Your task to perform on an android device: install app "VLC for Android" Image 0: 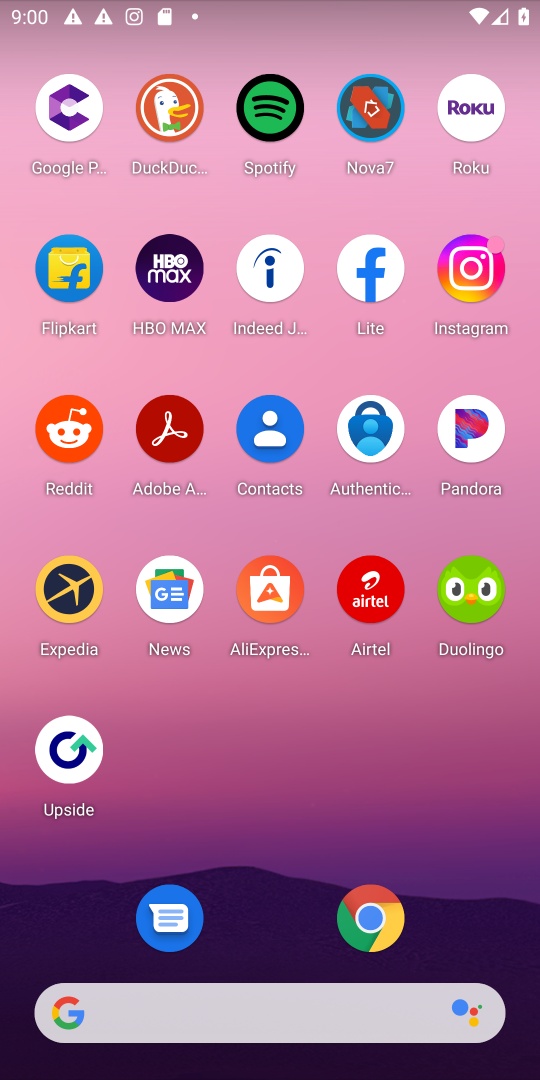
Step 0: press home button
Your task to perform on an android device: install app "VLC for Android" Image 1: 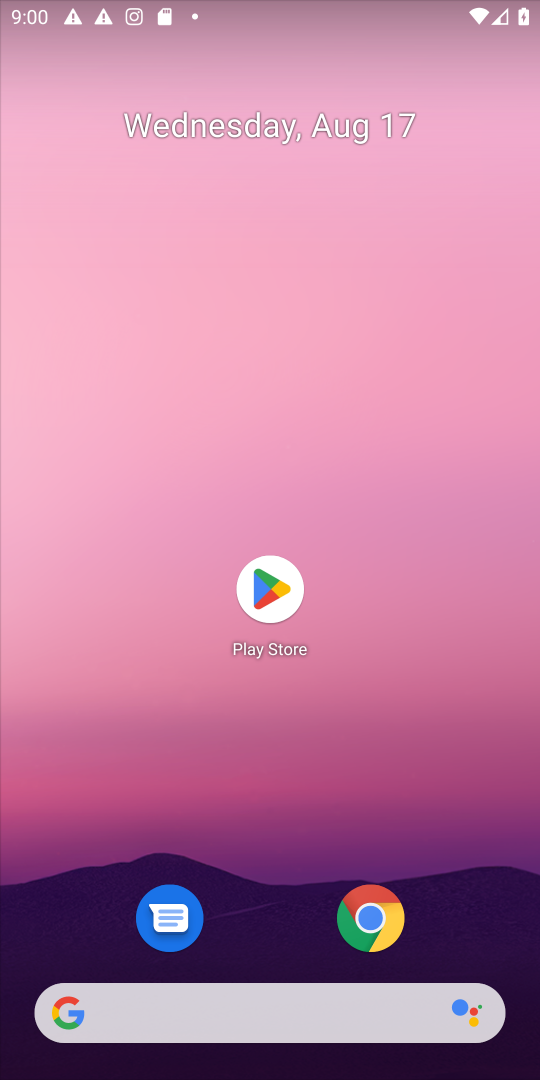
Step 1: click (268, 589)
Your task to perform on an android device: install app "VLC for Android" Image 2: 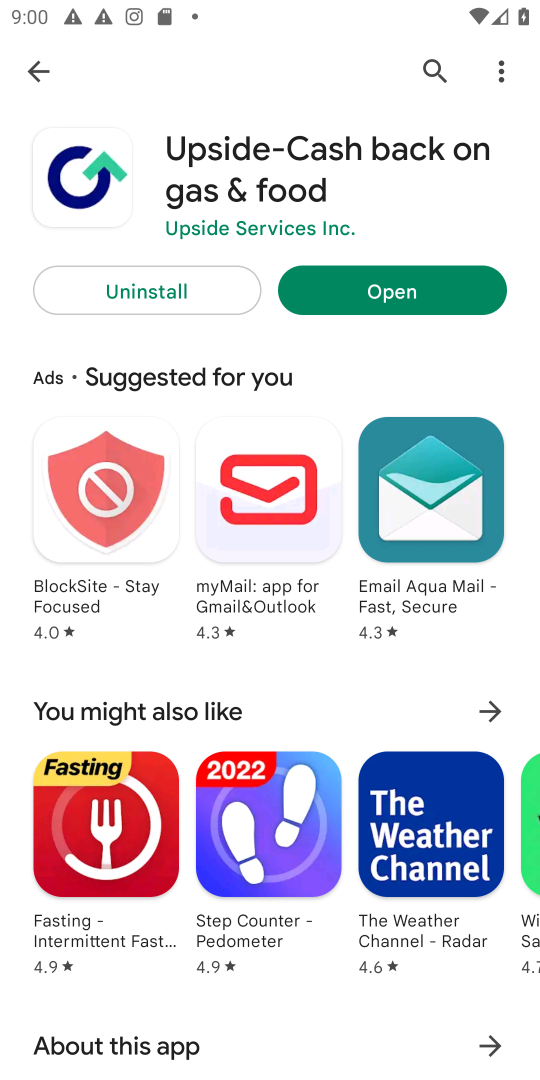
Step 2: click (430, 62)
Your task to perform on an android device: install app "VLC for Android" Image 3: 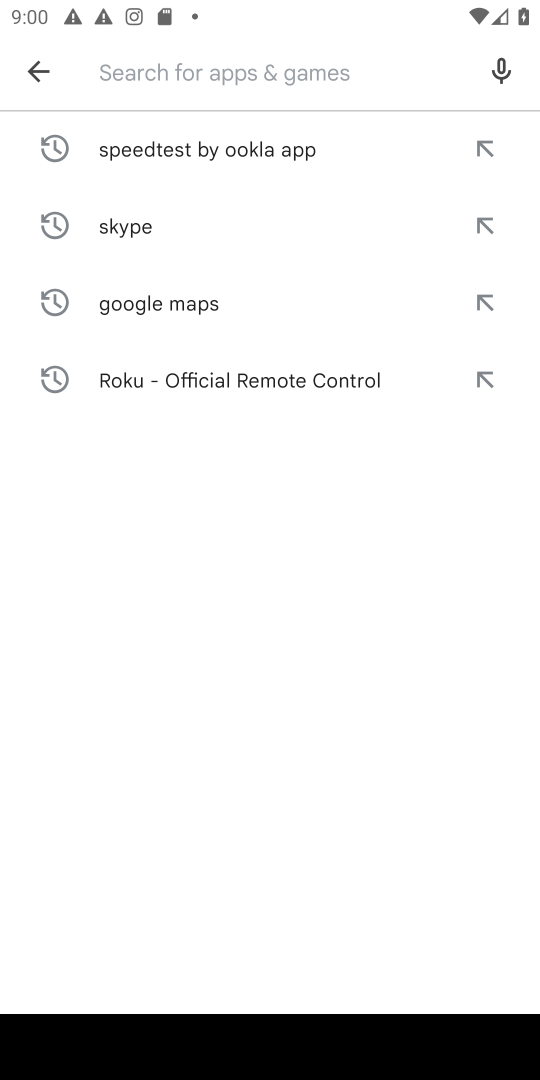
Step 3: type "VLC for Android"
Your task to perform on an android device: install app "VLC for Android" Image 4: 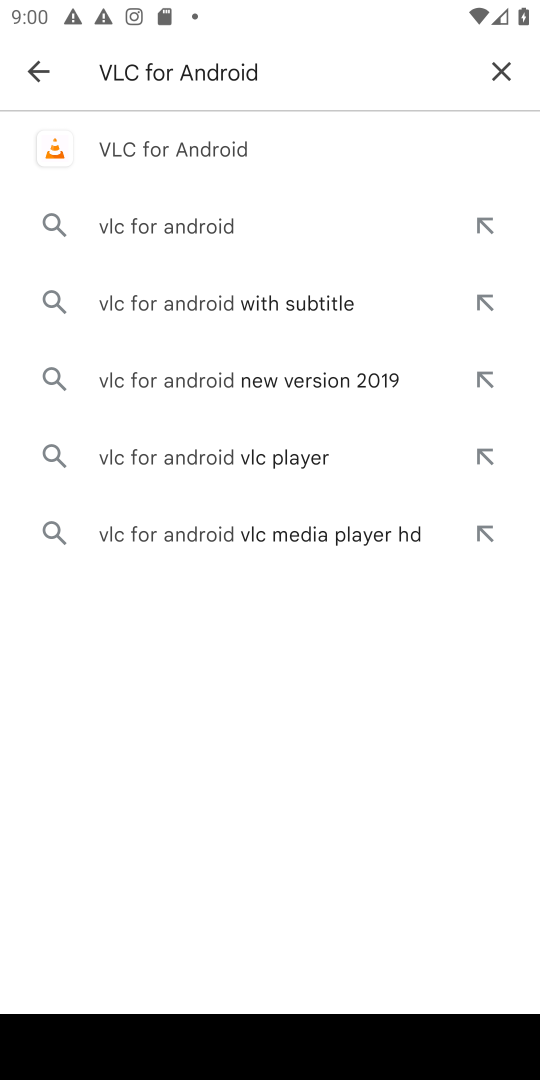
Step 4: click (200, 147)
Your task to perform on an android device: install app "VLC for Android" Image 5: 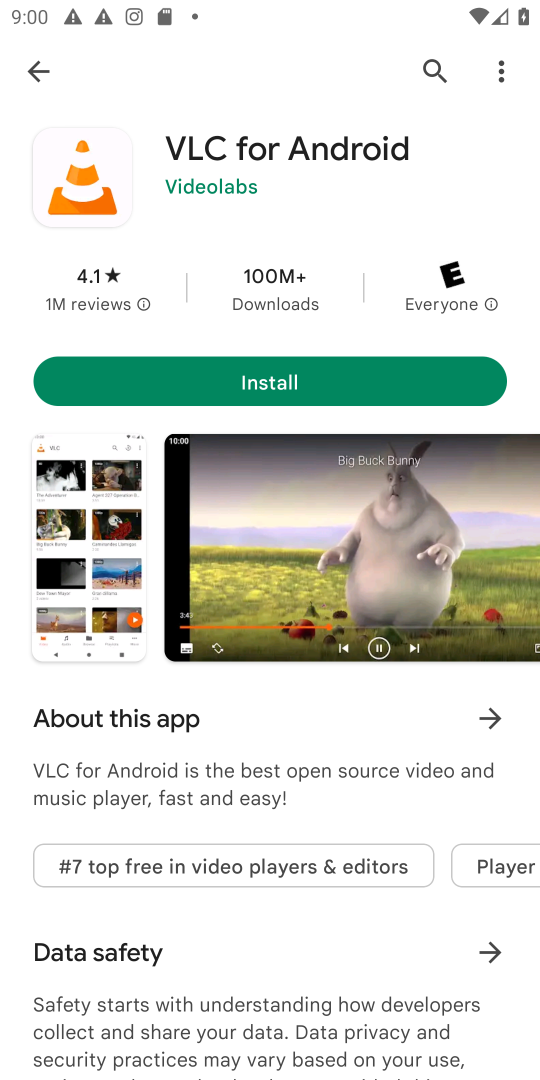
Step 5: click (289, 378)
Your task to perform on an android device: install app "VLC for Android" Image 6: 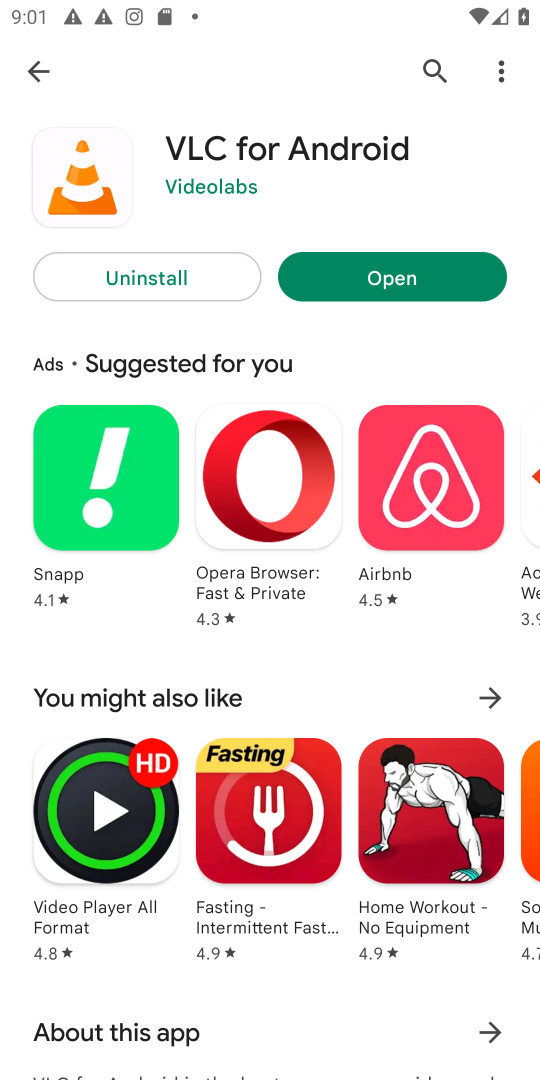
Step 6: task complete